Your task to perform on an android device: Open network settings Image 0: 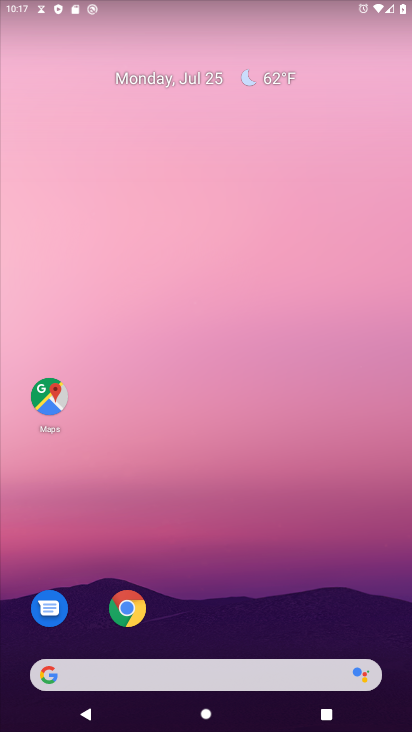
Step 0: drag from (181, 671) to (178, 189)
Your task to perform on an android device: Open network settings Image 1: 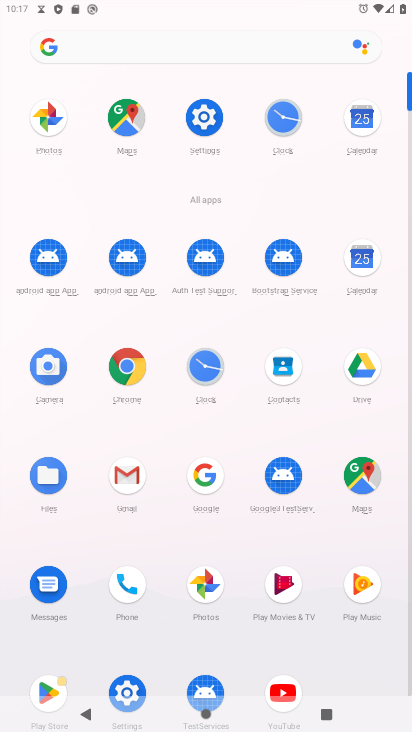
Step 1: click (127, 696)
Your task to perform on an android device: Open network settings Image 2: 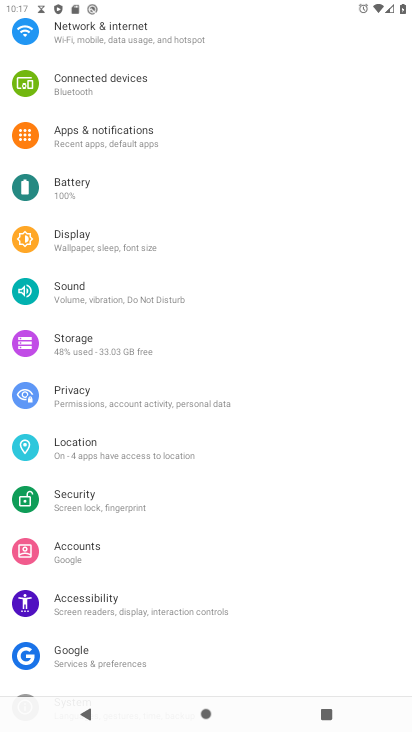
Step 2: drag from (158, 136) to (145, 360)
Your task to perform on an android device: Open network settings Image 3: 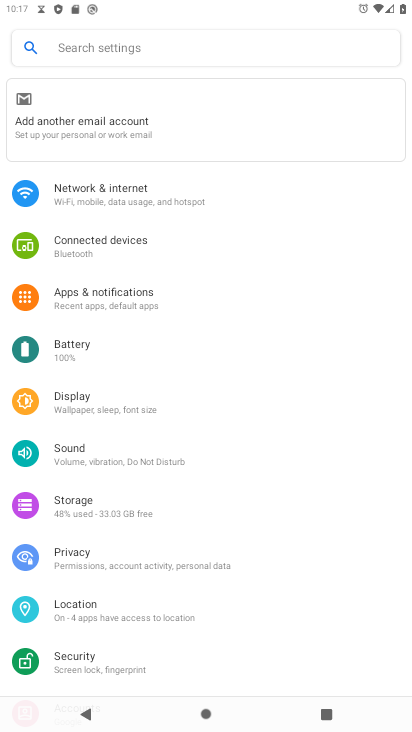
Step 3: click (103, 192)
Your task to perform on an android device: Open network settings Image 4: 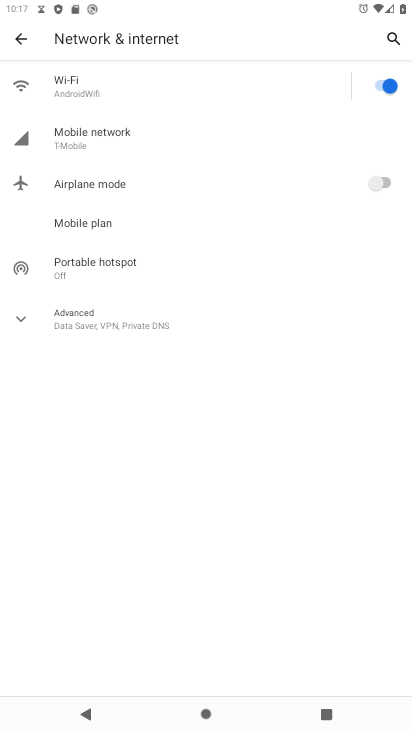
Step 4: task complete